Your task to perform on an android device: What's the weather? Image 0: 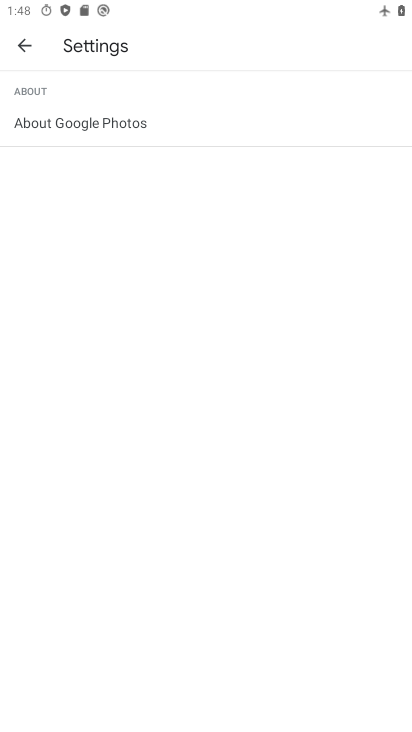
Step 0: press home button
Your task to perform on an android device: What's the weather? Image 1: 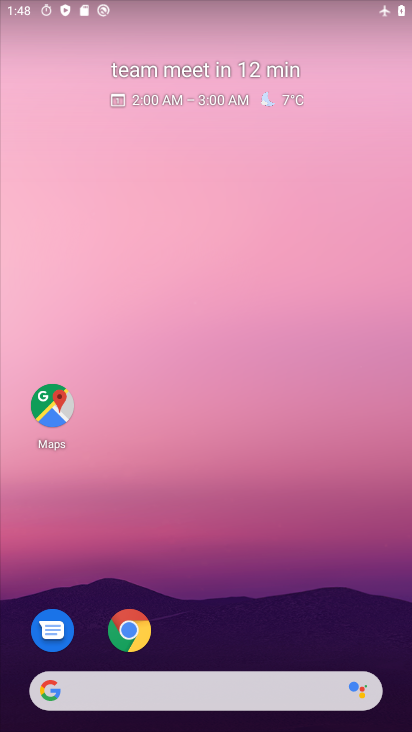
Step 1: click (280, 107)
Your task to perform on an android device: What's the weather? Image 2: 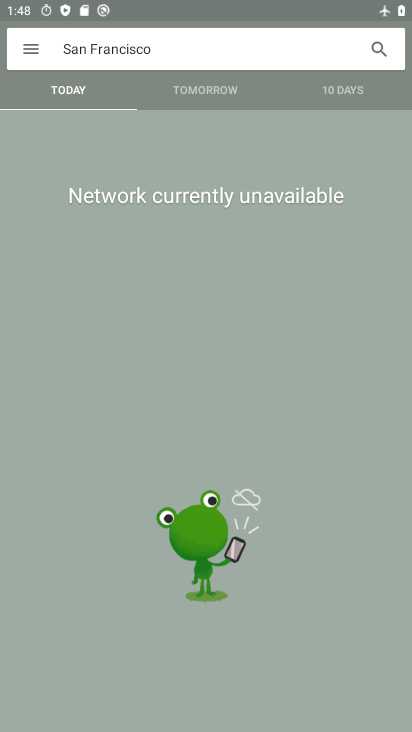
Step 2: task complete